Your task to perform on an android device: Open maps Image 0: 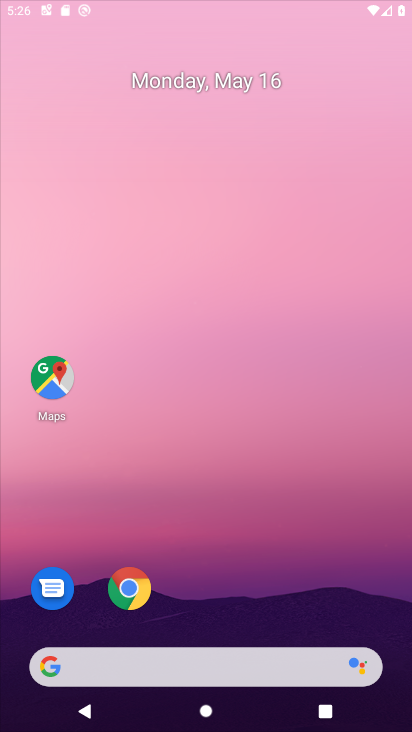
Step 0: click (234, 142)
Your task to perform on an android device: Open maps Image 1: 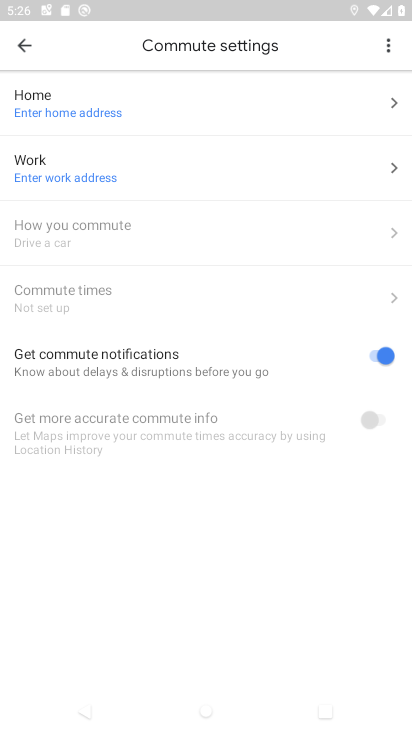
Step 1: press home button
Your task to perform on an android device: Open maps Image 2: 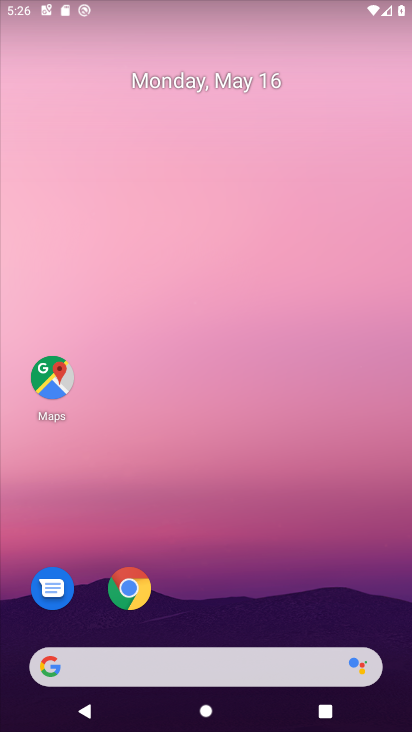
Step 2: click (52, 389)
Your task to perform on an android device: Open maps Image 3: 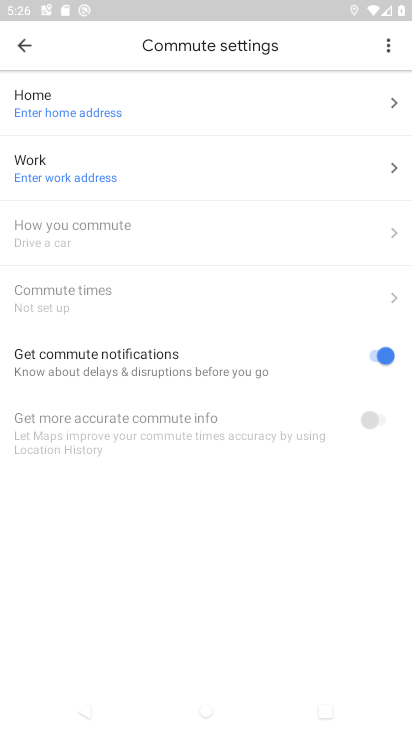
Step 3: task complete